Your task to perform on an android device: Clear the shopping cart on bestbuy.com. Search for corsair k70 on bestbuy.com, select the first entry, add it to the cart, then select checkout. Image 0: 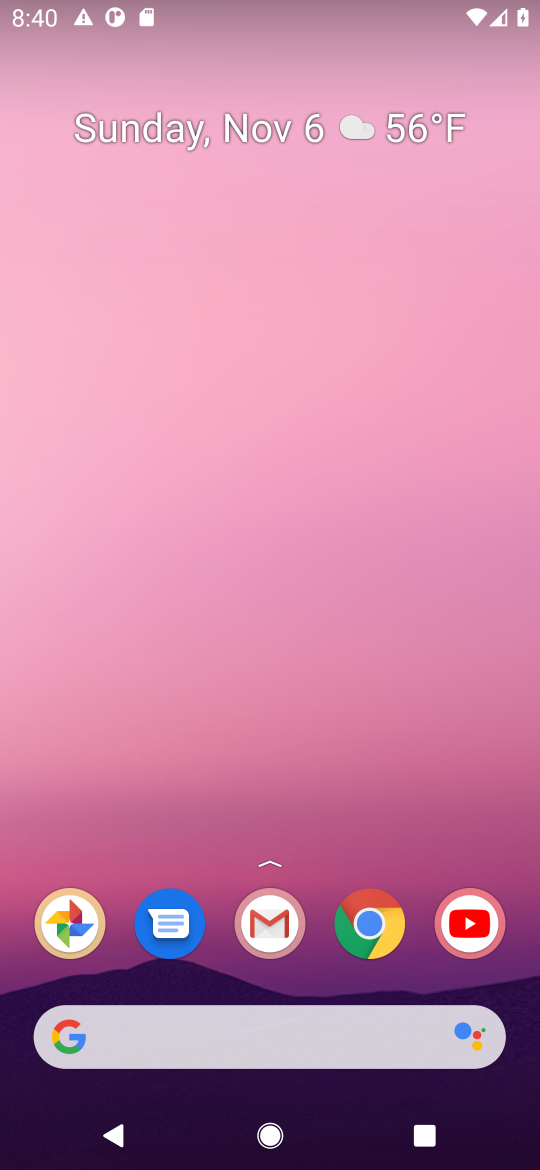
Step 0: click (361, 930)
Your task to perform on an android device: Clear the shopping cart on bestbuy.com. Search for corsair k70 on bestbuy.com, select the first entry, add it to the cart, then select checkout. Image 1: 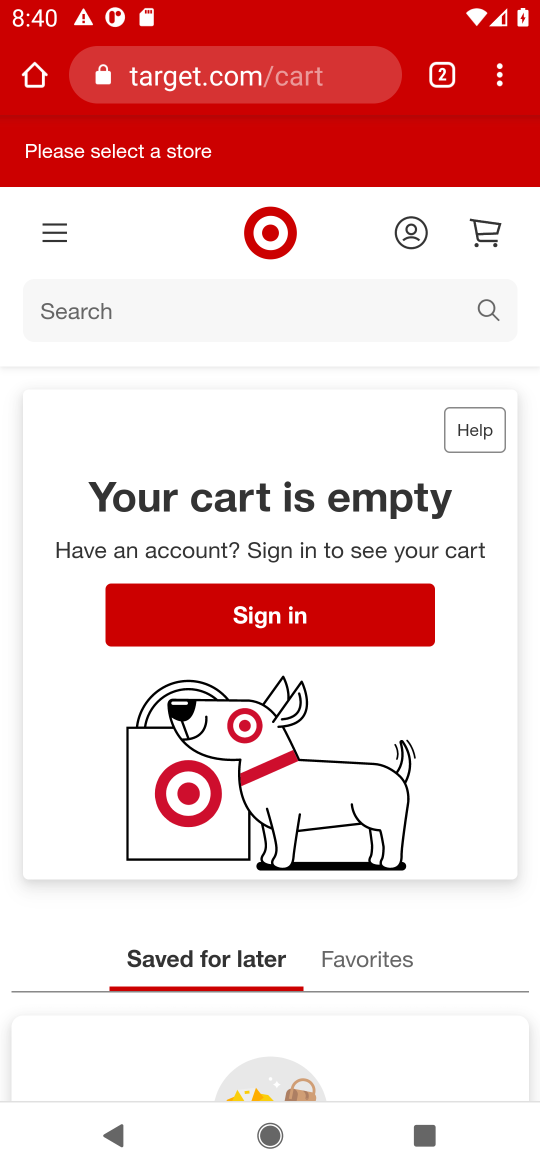
Step 1: click (234, 84)
Your task to perform on an android device: Clear the shopping cart on bestbuy.com. Search for corsair k70 on bestbuy.com, select the first entry, add it to the cart, then select checkout. Image 2: 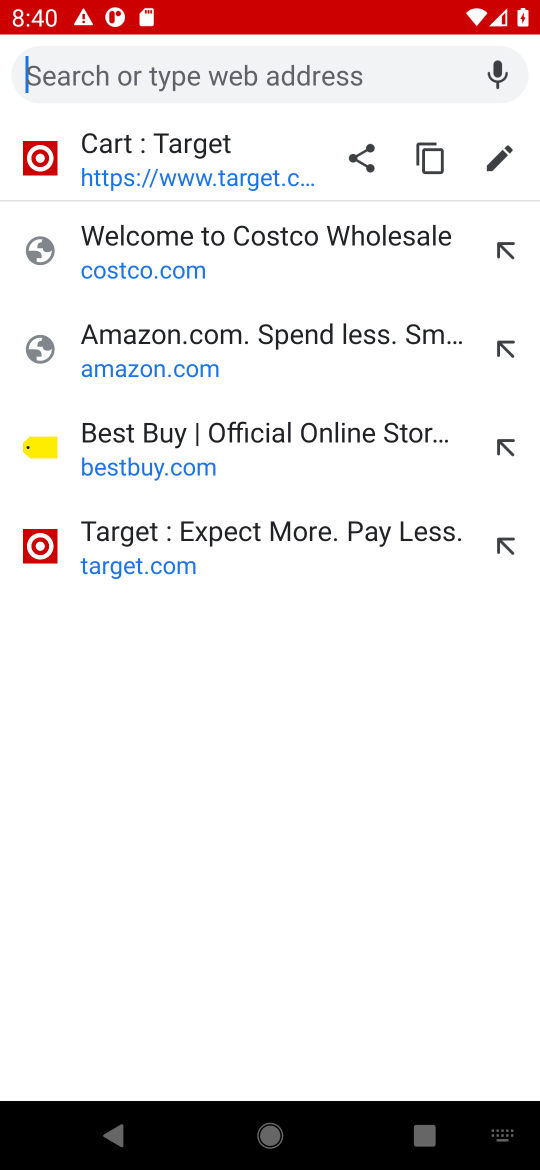
Step 2: click (156, 475)
Your task to perform on an android device: Clear the shopping cart on bestbuy.com. Search for corsair k70 on bestbuy.com, select the first entry, add it to the cart, then select checkout. Image 3: 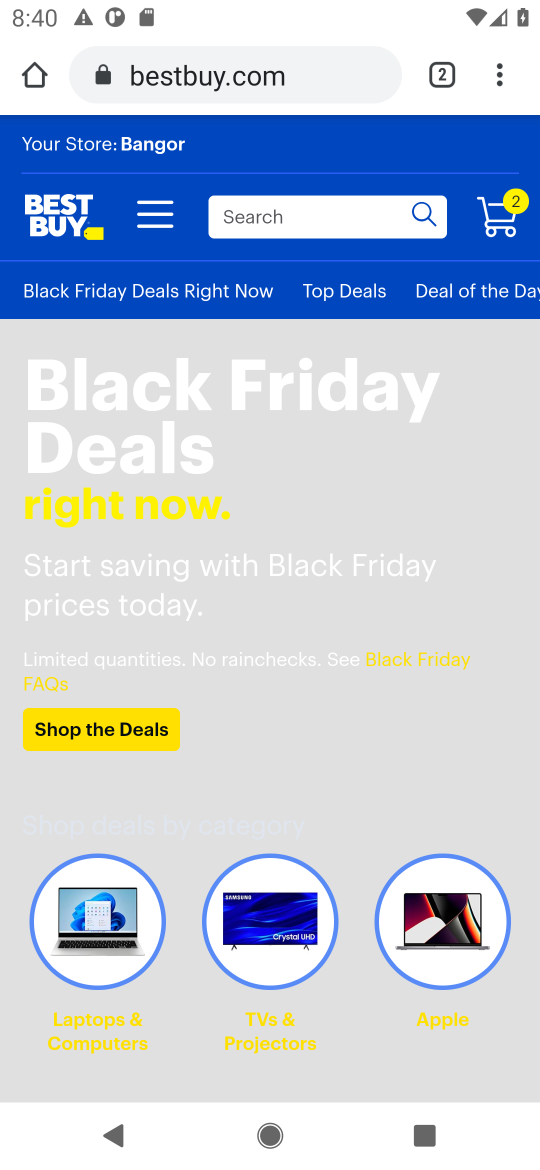
Step 3: click (498, 218)
Your task to perform on an android device: Clear the shopping cart on bestbuy.com. Search for corsair k70 on bestbuy.com, select the first entry, add it to the cart, then select checkout. Image 4: 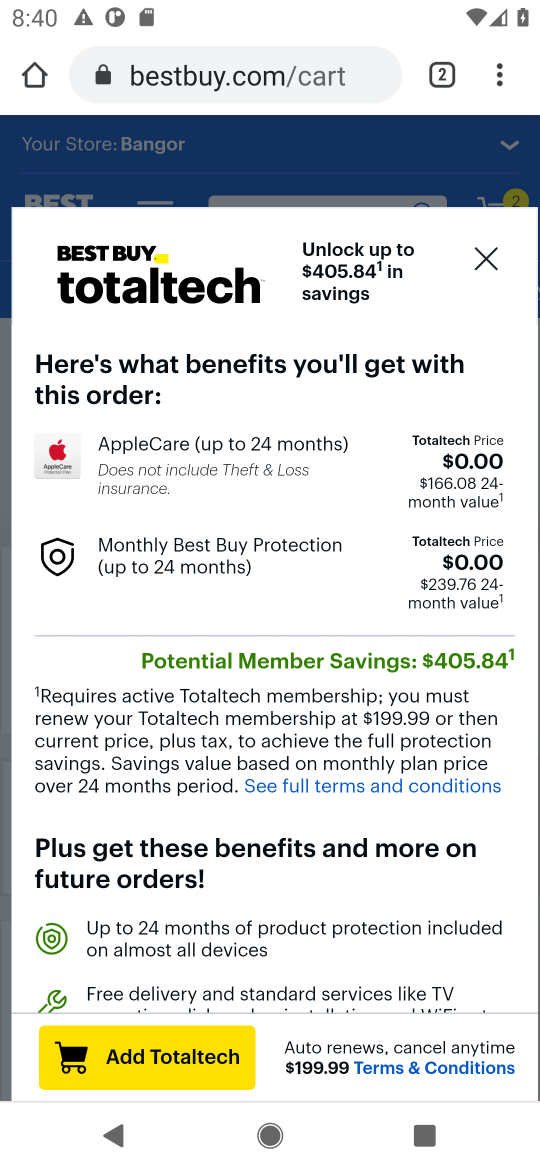
Step 4: click (499, 264)
Your task to perform on an android device: Clear the shopping cart on bestbuy.com. Search for corsair k70 on bestbuy.com, select the first entry, add it to the cart, then select checkout. Image 5: 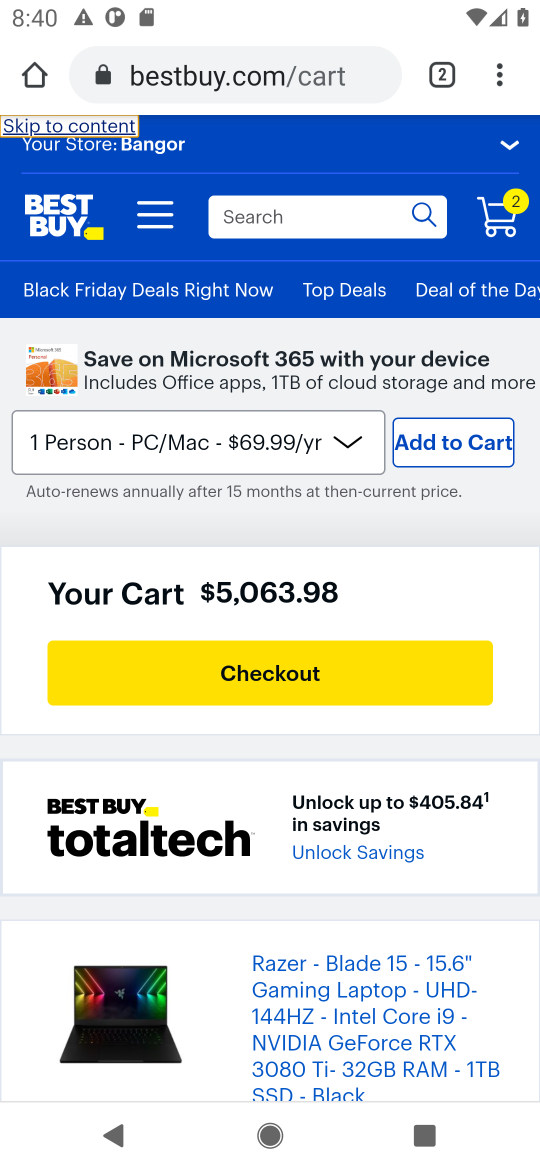
Step 5: drag from (190, 784) to (209, 296)
Your task to perform on an android device: Clear the shopping cart on bestbuy.com. Search for corsair k70 on bestbuy.com, select the first entry, add it to the cart, then select checkout. Image 6: 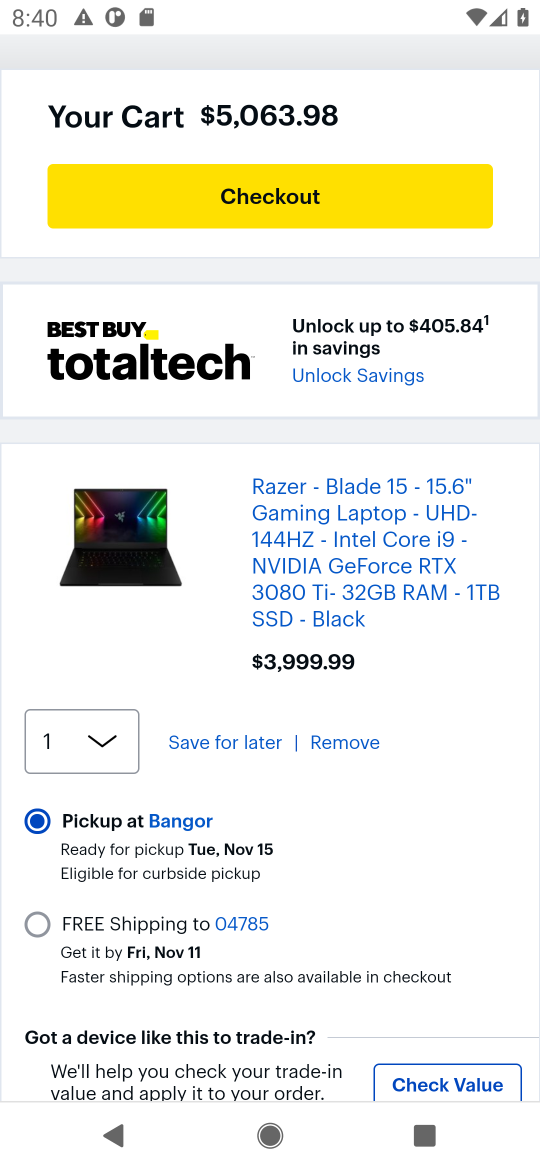
Step 6: click (316, 745)
Your task to perform on an android device: Clear the shopping cart on bestbuy.com. Search for corsair k70 on bestbuy.com, select the first entry, add it to the cart, then select checkout. Image 7: 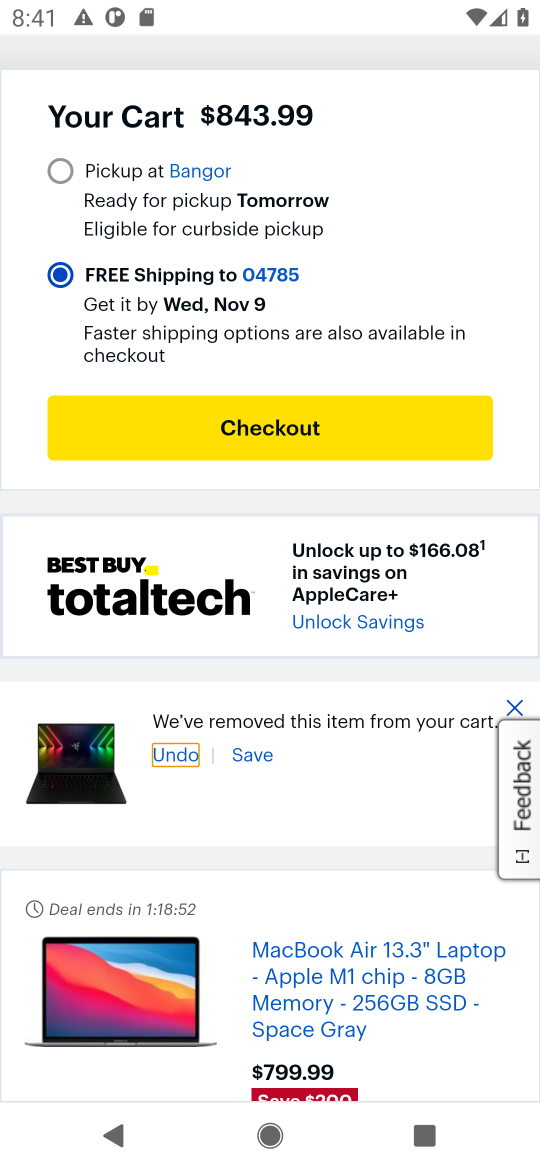
Step 7: drag from (273, 317) to (293, 1012)
Your task to perform on an android device: Clear the shopping cart on bestbuy.com. Search for corsair k70 on bestbuy.com, select the first entry, add it to the cart, then select checkout. Image 8: 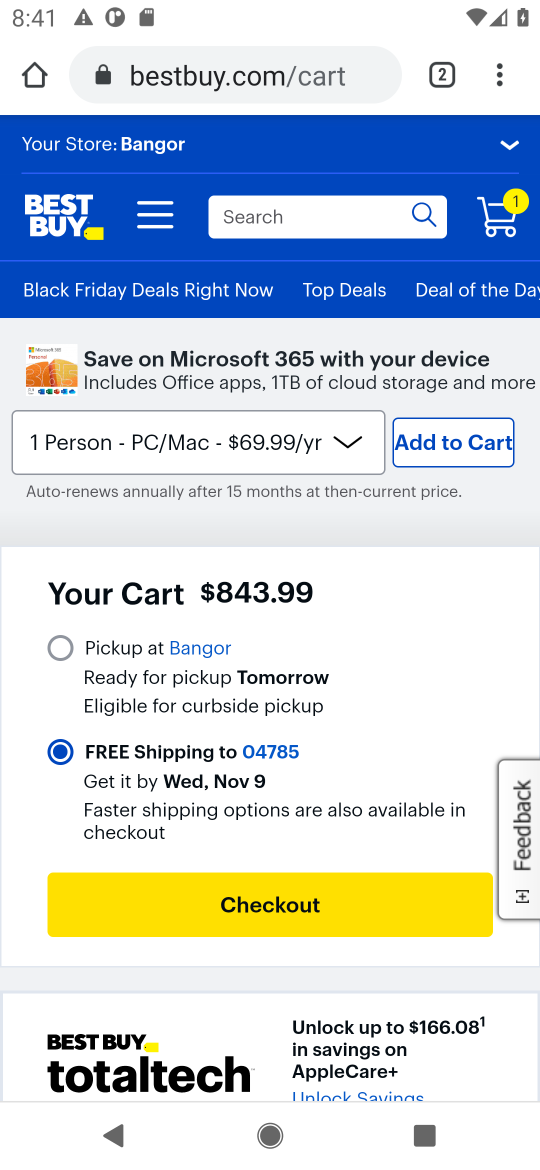
Step 8: drag from (267, 715) to (244, 196)
Your task to perform on an android device: Clear the shopping cart on bestbuy.com. Search for corsair k70 on bestbuy.com, select the first entry, add it to the cart, then select checkout. Image 9: 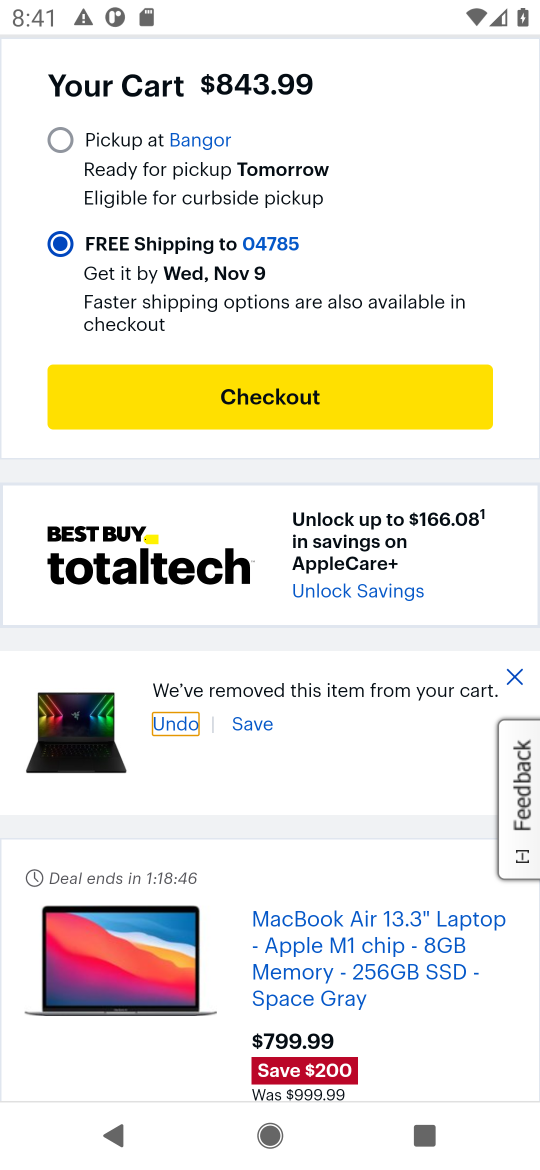
Step 9: drag from (195, 875) to (214, 320)
Your task to perform on an android device: Clear the shopping cart on bestbuy.com. Search for corsair k70 on bestbuy.com, select the first entry, add it to the cart, then select checkout. Image 10: 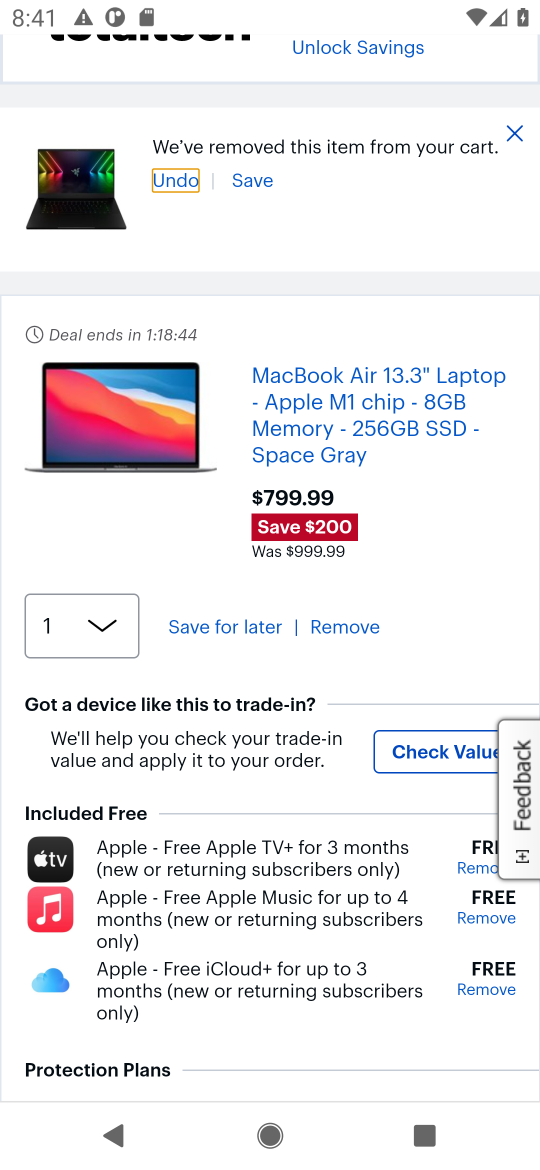
Step 10: click (335, 630)
Your task to perform on an android device: Clear the shopping cart on bestbuy.com. Search for corsair k70 on bestbuy.com, select the first entry, add it to the cart, then select checkout. Image 11: 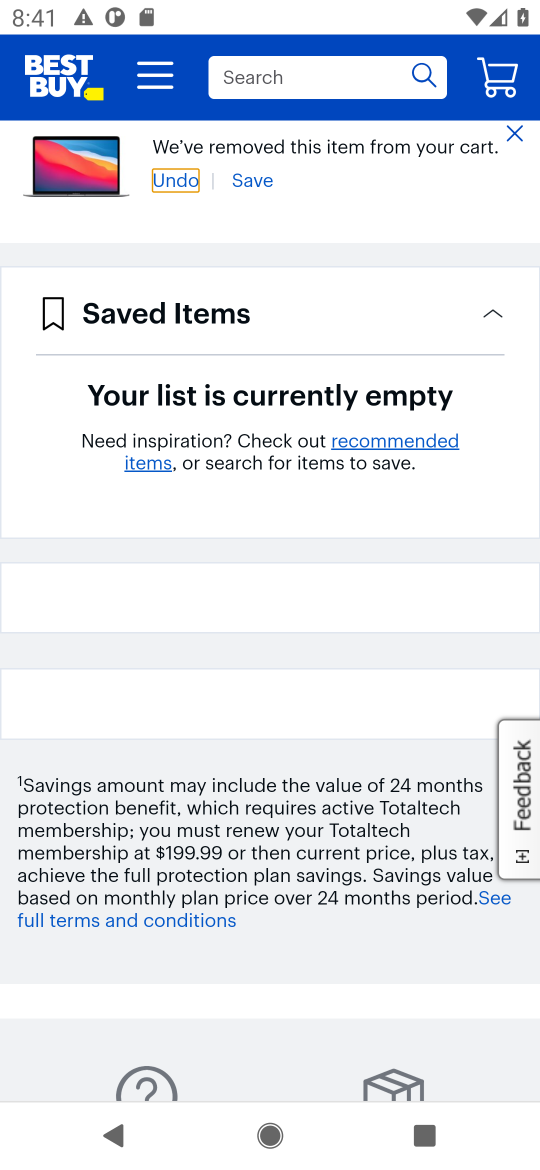
Step 11: drag from (285, 271) to (263, 582)
Your task to perform on an android device: Clear the shopping cart on bestbuy.com. Search for corsair k70 on bestbuy.com, select the first entry, add it to the cart, then select checkout. Image 12: 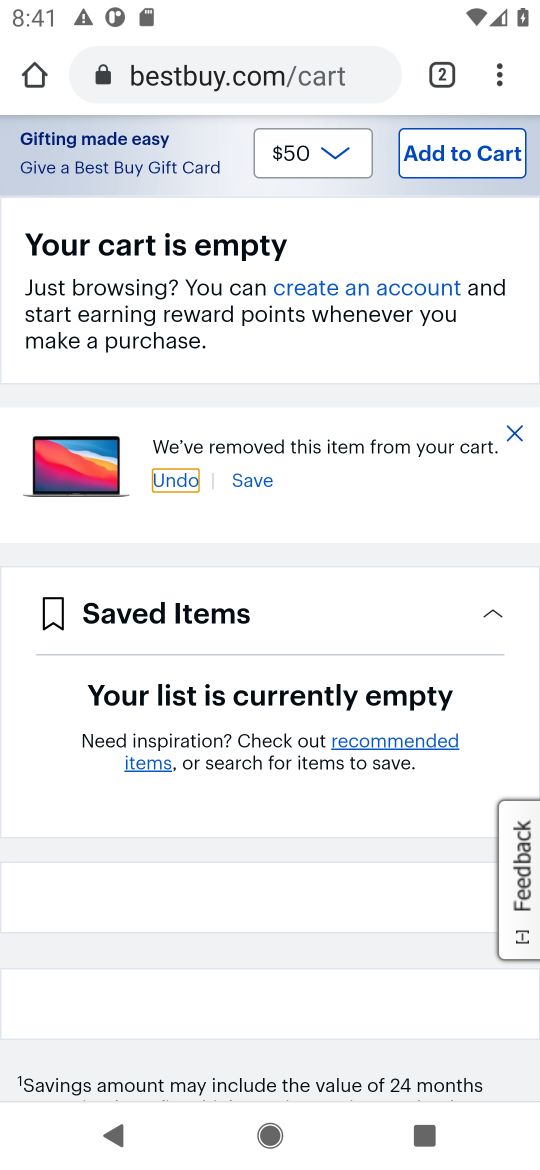
Step 12: click (276, 162)
Your task to perform on an android device: Clear the shopping cart on bestbuy.com. Search for corsair k70 on bestbuy.com, select the first entry, add it to the cart, then select checkout. Image 13: 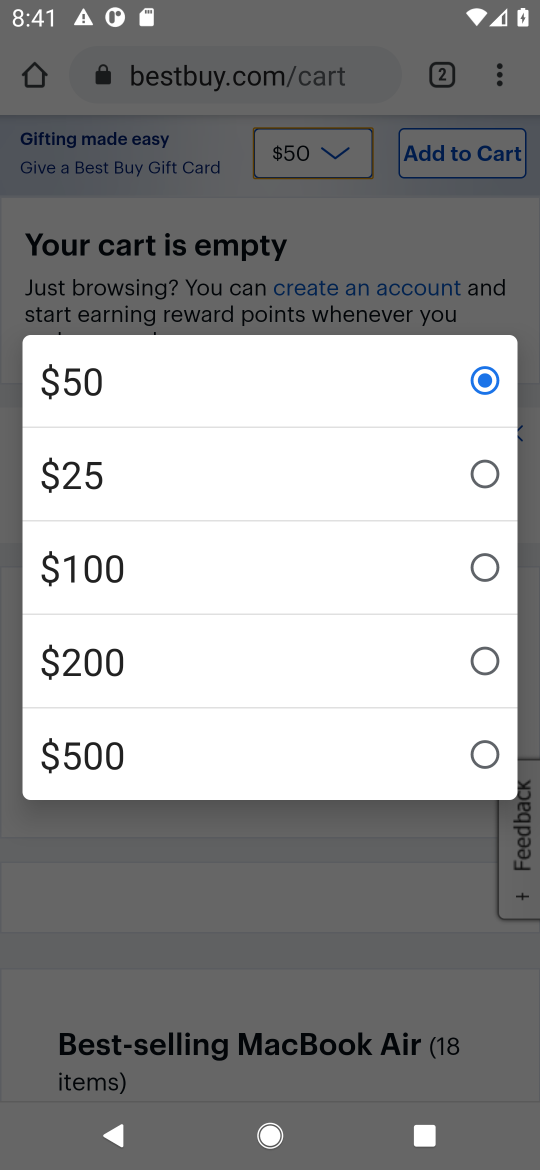
Step 13: click (9, 231)
Your task to perform on an android device: Clear the shopping cart on bestbuy.com. Search for corsair k70 on bestbuy.com, select the first entry, add it to the cart, then select checkout. Image 14: 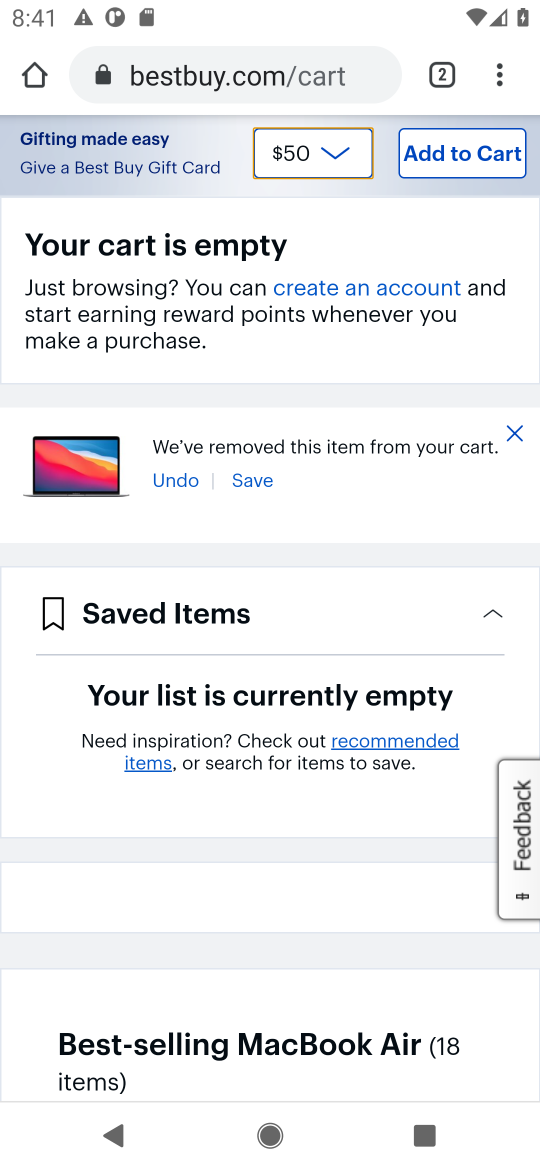
Step 14: drag from (379, 461) to (348, 695)
Your task to perform on an android device: Clear the shopping cart on bestbuy.com. Search for corsair k70 on bestbuy.com, select the first entry, add it to the cart, then select checkout. Image 15: 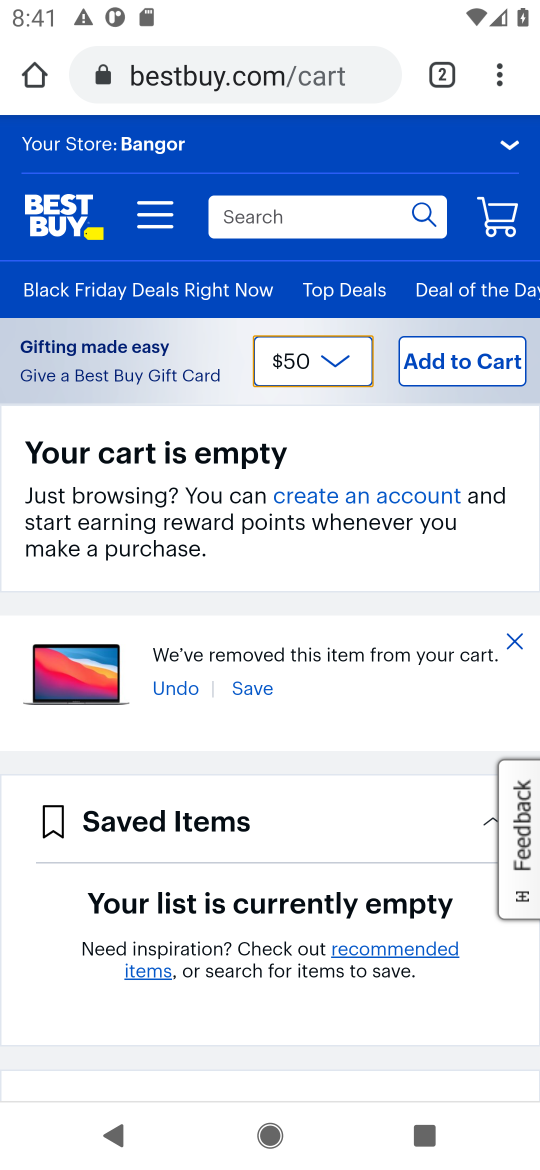
Step 15: click (274, 197)
Your task to perform on an android device: Clear the shopping cart on bestbuy.com. Search for corsair k70 on bestbuy.com, select the first entry, add it to the cart, then select checkout. Image 16: 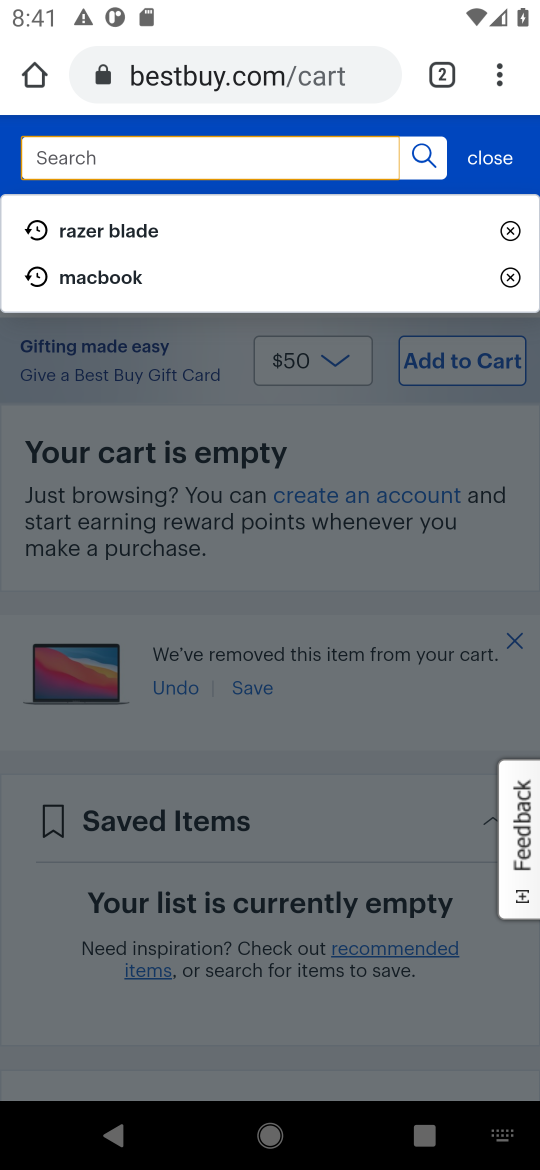
Step 16: type "corsair k70"
Your task to perform on an android device: Clear the shopping cart on bestbuy.com. Search for corsair k70 on bestbuy.com, select the first entry, add it to the cart, then select checkout. Image 17: 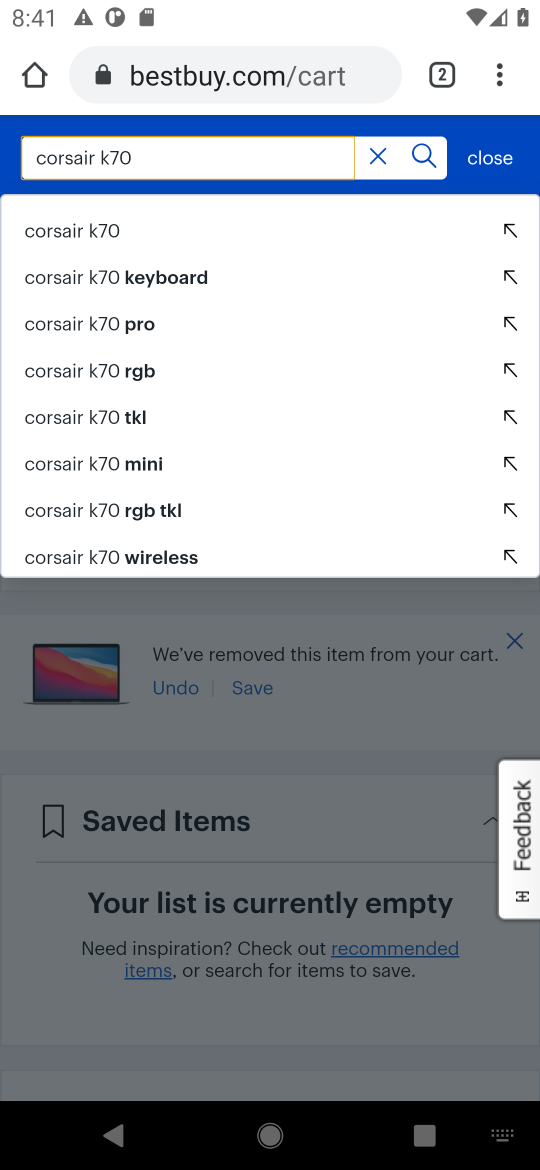
Step 17: click (65, 237)
Your task to perform on an android device: Clear the shopping cart on bestbuy.com. Search for corsair k70 on bestbuy.com, select the first entry, add it to the cart, then select checkout. Image 18: 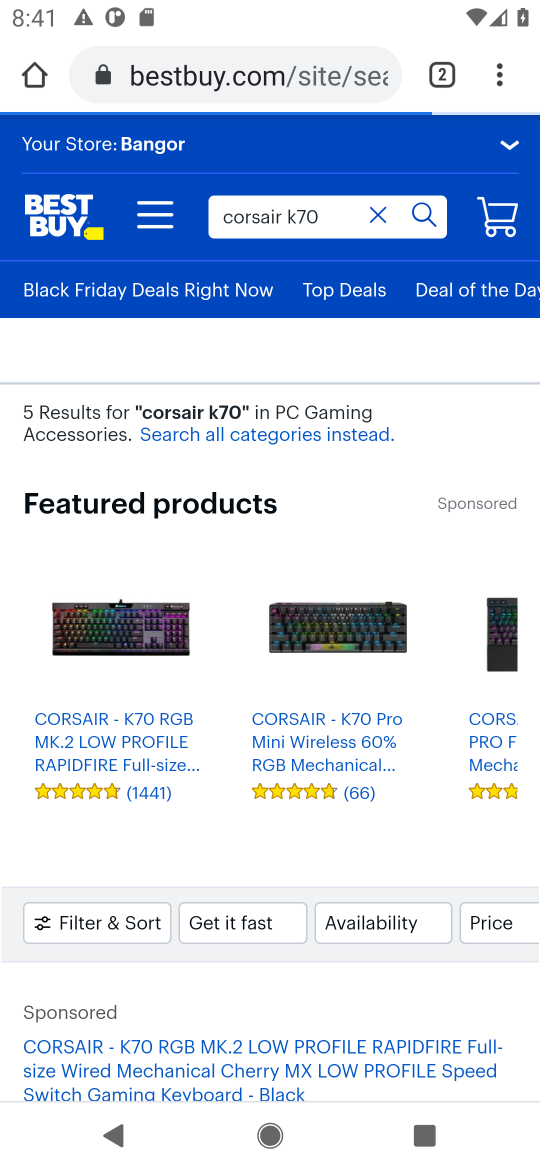
Step 18: drag from (260, 971) to (273, 394)
Your task to perform on an android device: Clear the shopping cart on bestbuy.com. Search for corsair k70 on bestbuy.com, select the first entry, add it to the cart, then select checkout. Image 19: 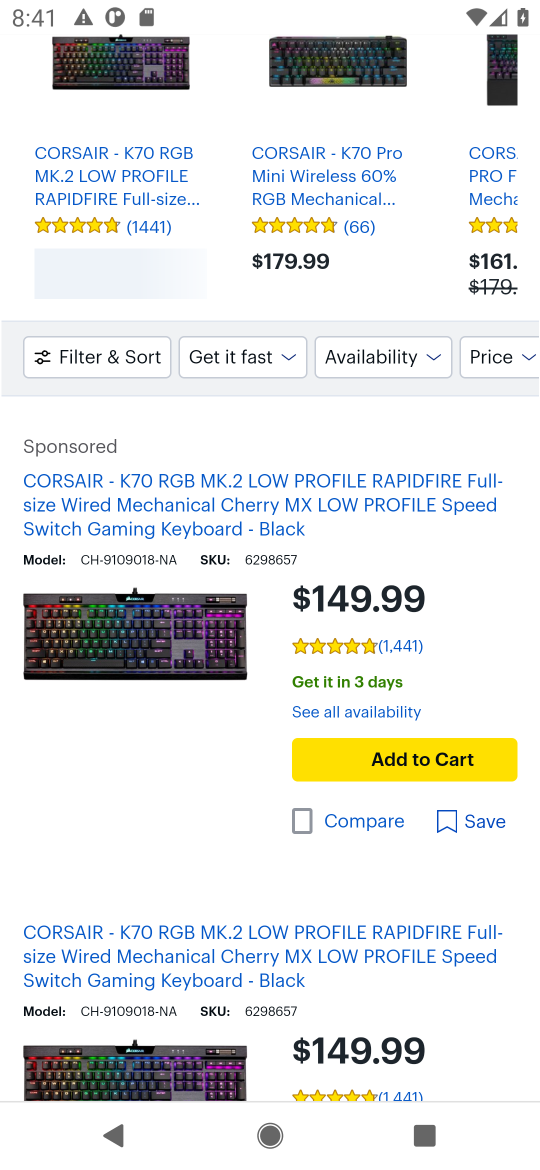
Step 19: click (380, 700)
Your task to perform on an android device: Clear the shopping cart on bestbuy.com. Search for corsair k70 on bestbuy.com, select the first entry, add it to the cart, then select checkout. Image 20: 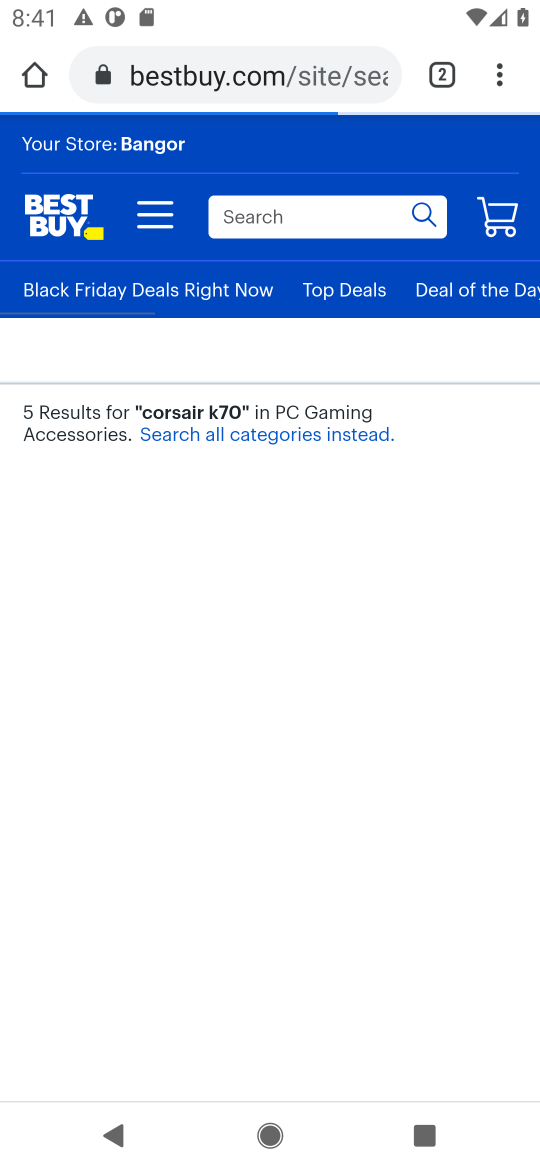
Step 20: click (485, 758)
Your task to perform on an android device: Clear the shopping cart on bestbuy.com. Search for corsair k70 on bestbuy.com, select the first entry, add it to the cart, then select checkout. Image 21: 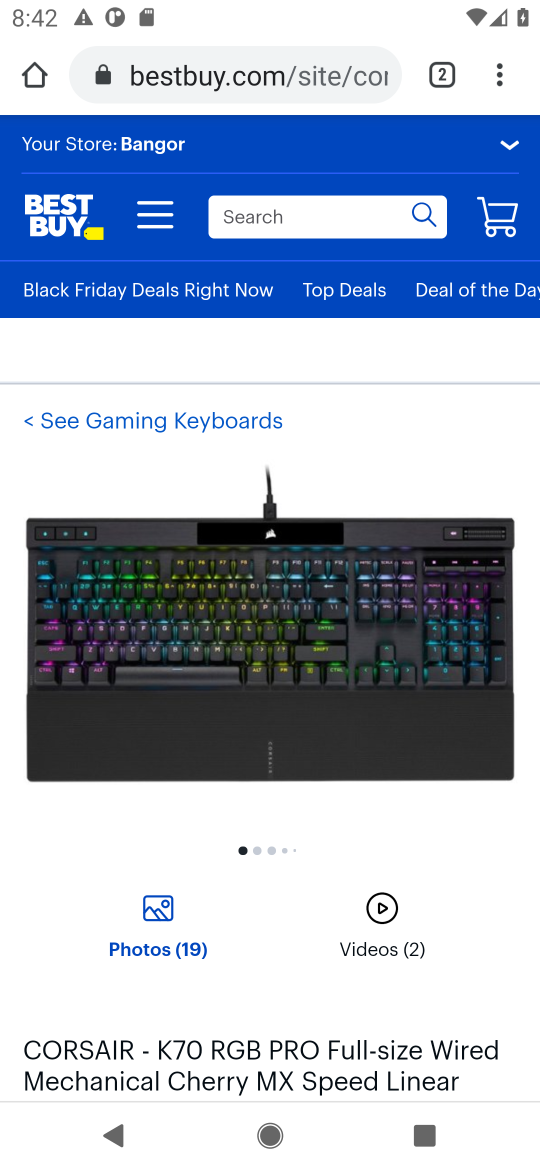
Step 21: drag from (242, 955) to (277, 574)
Your task to perform on an android device: Clear the shopping cart on bestbuy.com. Search for corsair k70 on bestbuy.com, select the first entry, add it to the cart, then select checkout. Image 22: 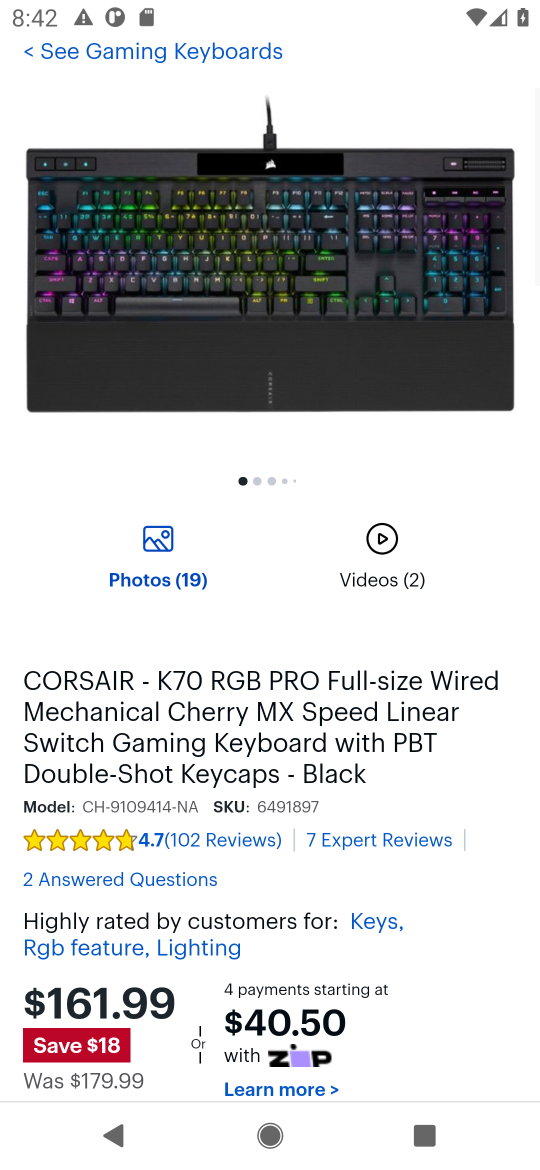
Step 22: drag from (200, 936) to (268, 419)
Your task to perform on an android device: Clear the shopping cart on bestbuy.com. Search for corsair k70 on bestbuy.com, select the first entry, add it to the cart, then select checkout. Image 23: 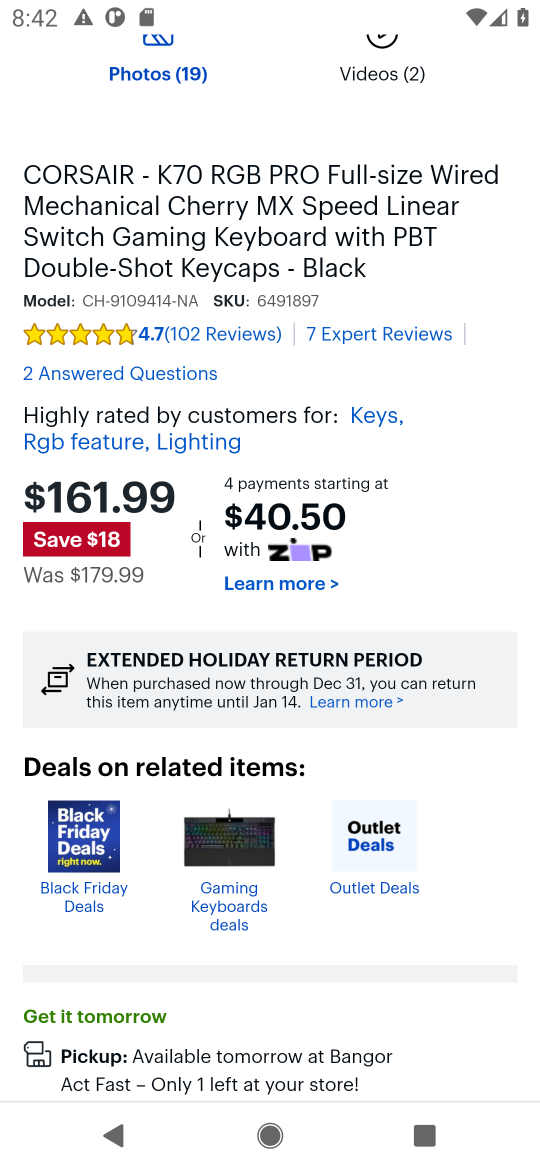
Step 23: drag from (265, 940) to (291, 445)
Your task to perform on an android device: Clear the shopping cart on bestbuy.com. Search for corsair k70 on bestbuy.com, select the first entry, add it to the cart, then select checkout. Image 24: 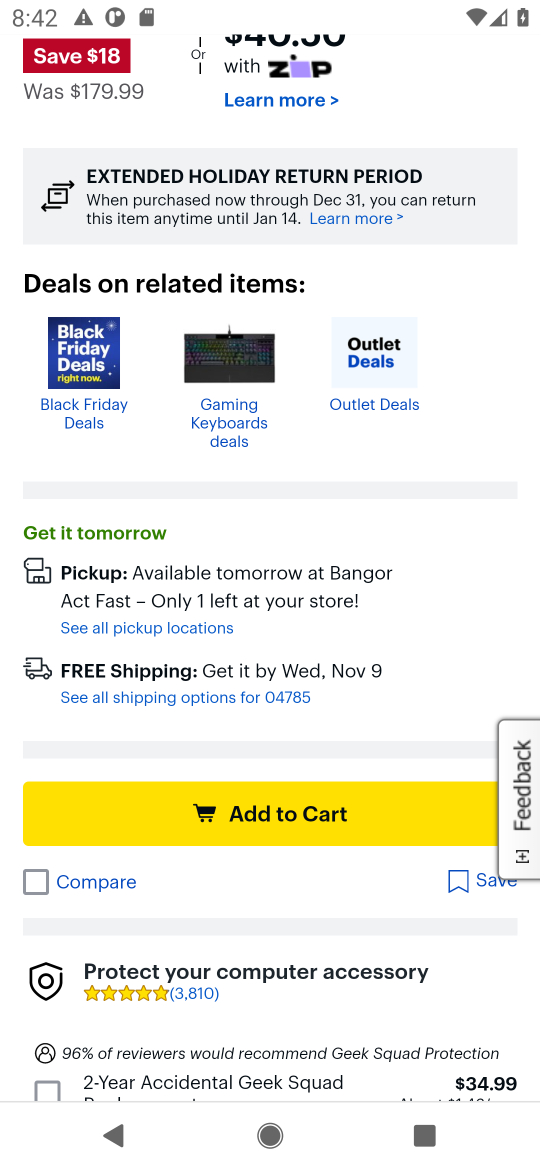
Step 24: click (222, 814)
Your task to perform on an android device: Clear the shopping cart on bestbuy.com. Search for corsair k70 on bestbuy.com, select the first entry, add it to the cart, then select checkout. Image 25: 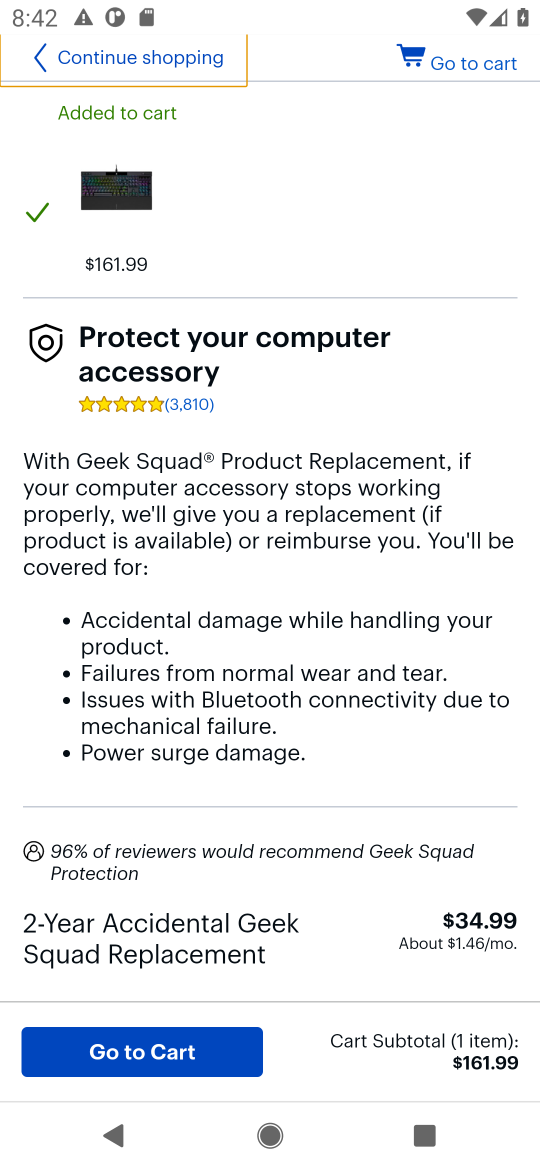
Step 25: click (459, 67)
Your task to perform on an android device: Clear the shopping cart on bestbuy.com. Search for corsair k70 on bestbuy.com, select the first entry, add it to the cart, then select checkout. Image 26: 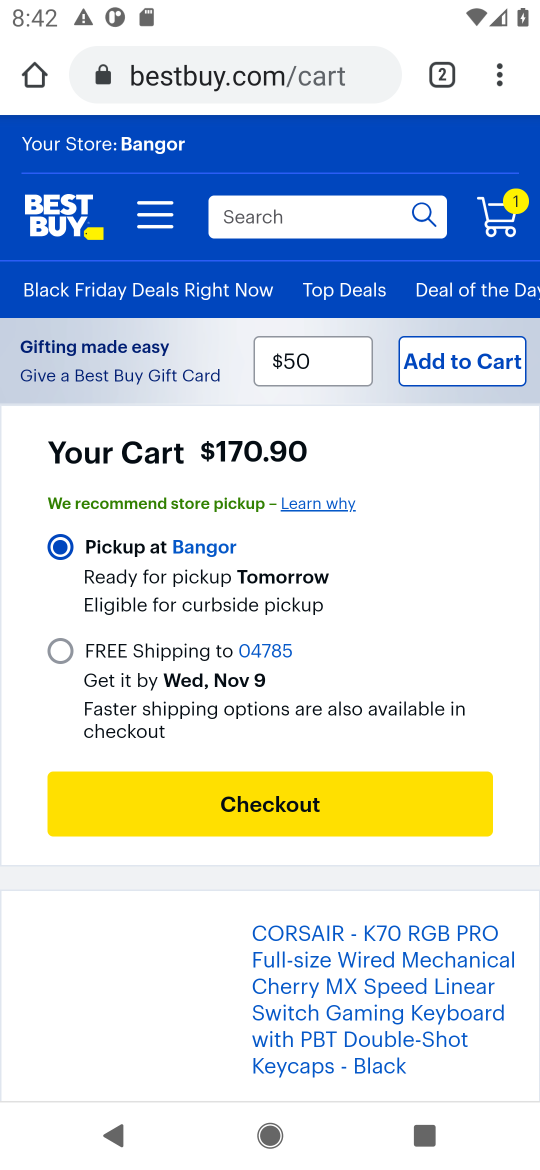
Step 26: click (204, 808)
Your task to perform on an android device: Clear the shopping cart on bestbuy.com. Search for corsair k70 on bestbuy.com, select the first entry, add it to the cart, then select checkout. Image 27: 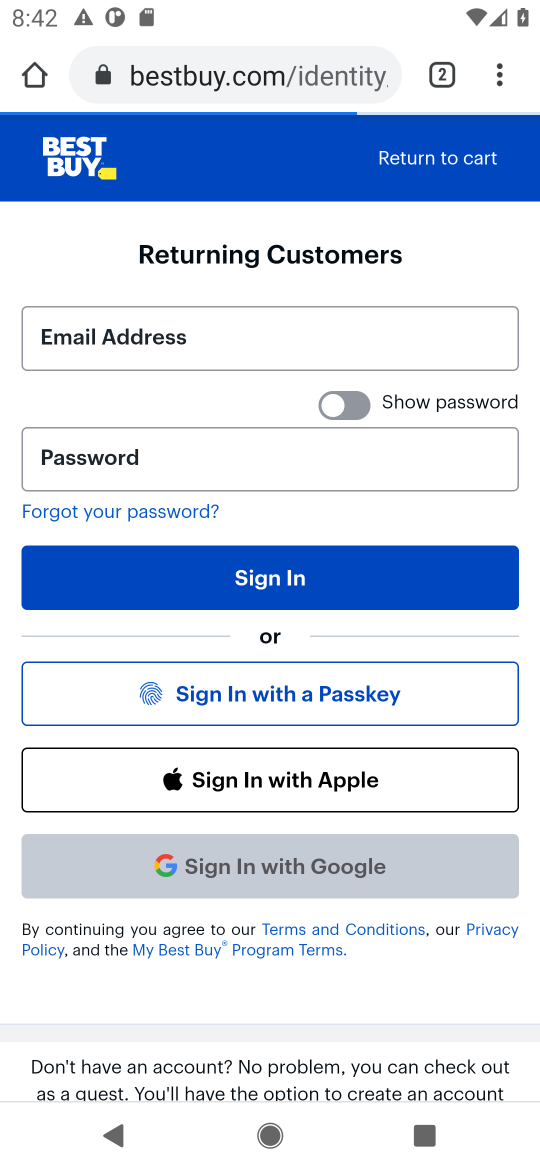
Step 27: task complete